Your task to perform on an android device: Show me the alarms in the clock app Image 0: 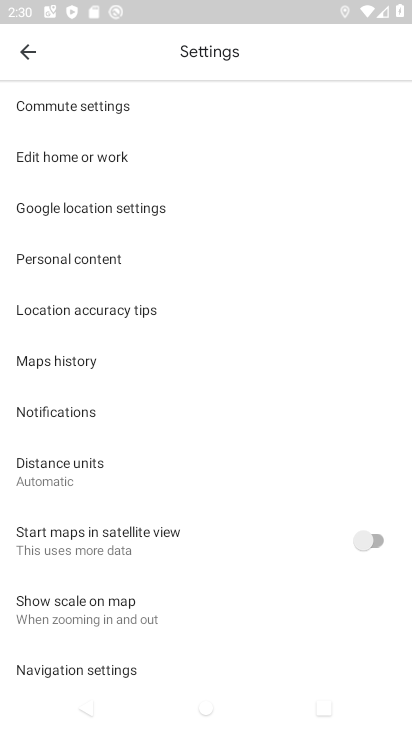
Step 0: press home button
Your task to perform on an android device: Show me the alarms in the clock app Image 1: 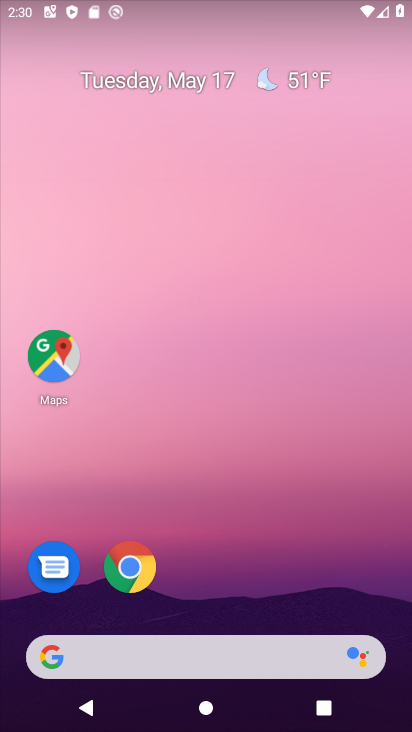
Step 1: drag from (191, 657) to (272, 221)
Your task to perform on an android device: Show me the alarms in the clock app Image 2: 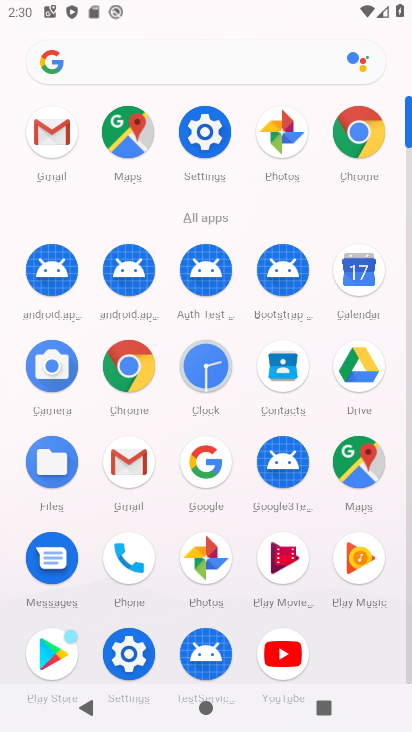
Step 2: click (191, 370)
Your task to perform on an android device: Show me the alarms in the clock app Image 3: 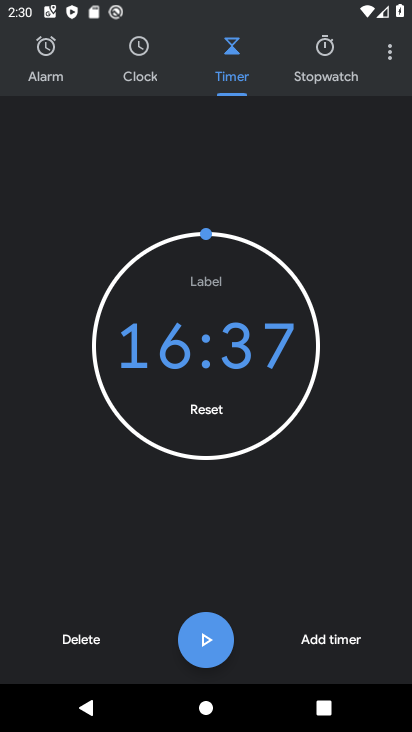
Step 3: click (43, 69)
Your task to perform on an android device: Show me the alarms in the clock app Image 4: 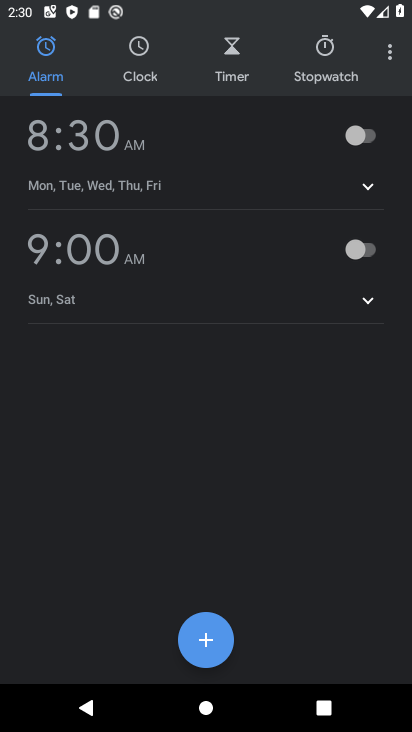
Step 4: task complete